Your task to perform on an android device: clear history in the chrome app Image 0: 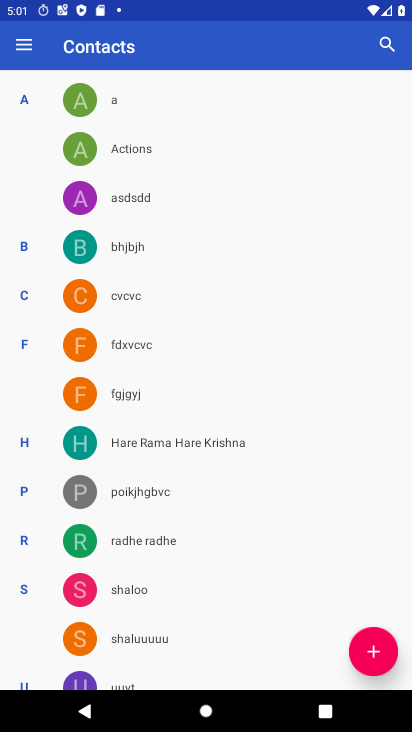
Step 0: press home button
Your task to perform on an android device: clear history in the chrome app Image 1: 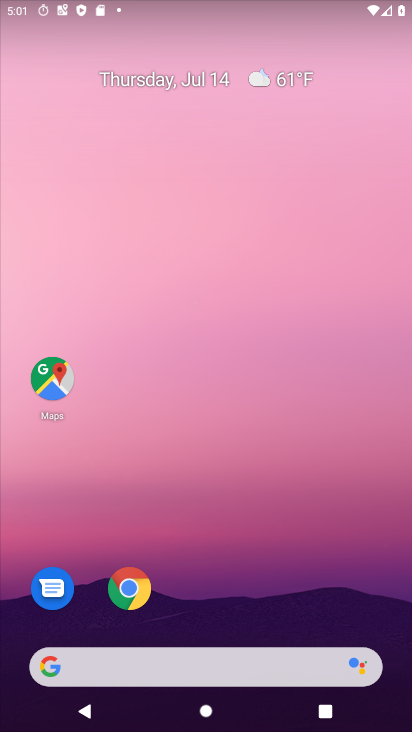
Step 1: click (129, 587)
Your task to perform on an android device: clear history in the chrome app Image 2: 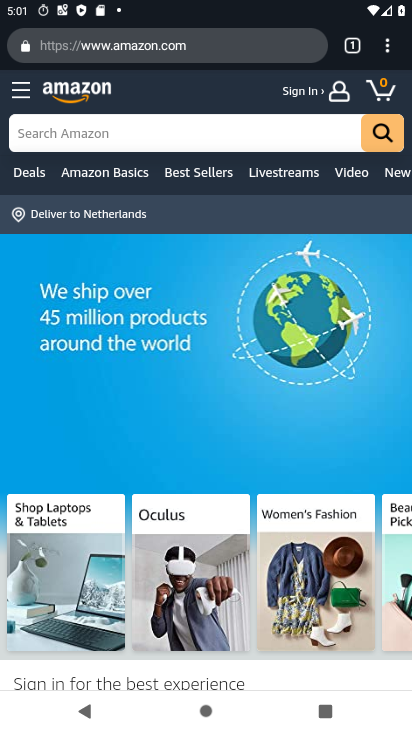
Step 2: click (389, 46)
Your task to perform on an android device: clear history in the chrome app Image 3: 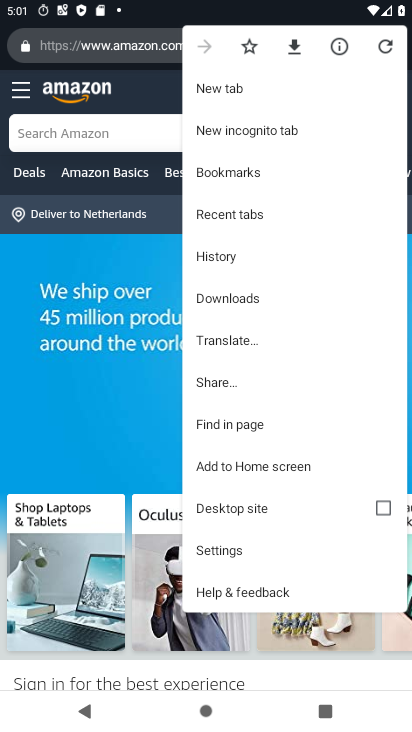
Step 3: click (233, 258)
Your task to perform on an android device: clear history in the chrome app Image 4: 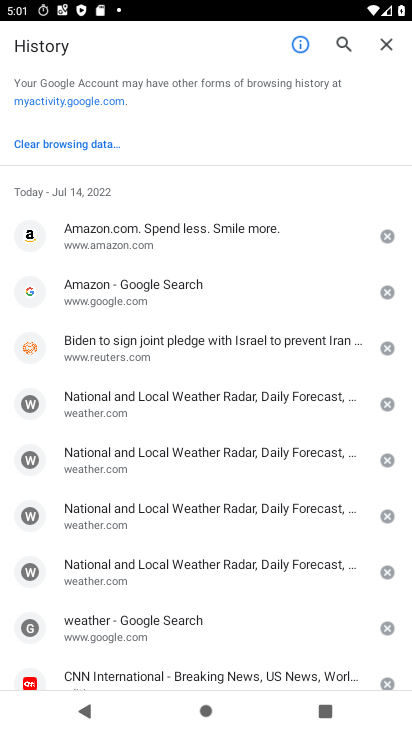
Step 4: click (92, 143)
Your task to perform on an android device: clear history in the chrome app Image 5: 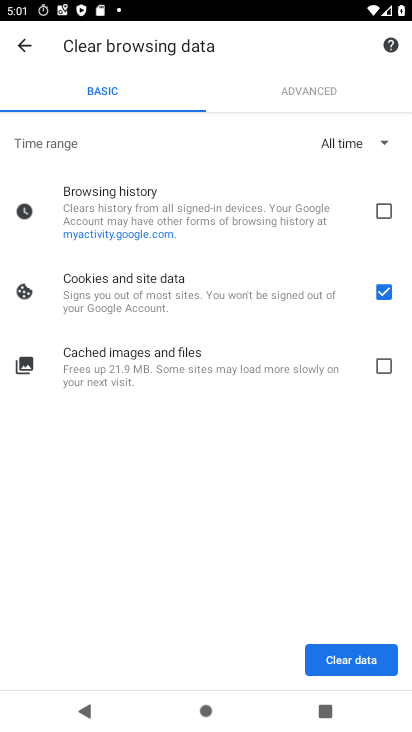
Step 5: click (378, 213)
Your task to perform on an android device: clear history in the chrome app Image 6: 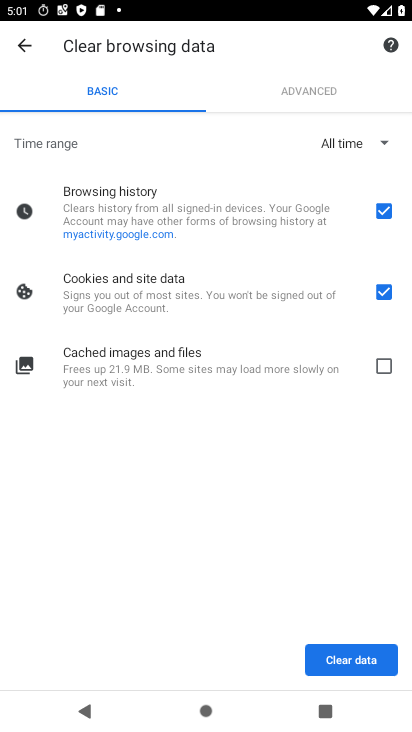
Step 6: click (385, 369)
Your task to perform on an android device: clear history in the chrome app Image 7: 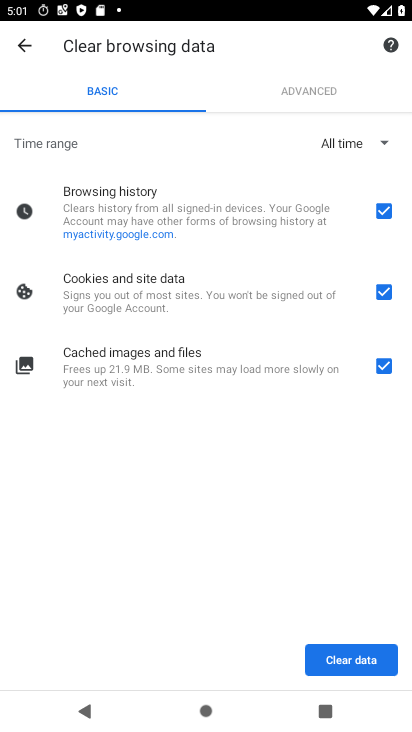
Step 7: click (351, 666)
Your task to perform on an android device: clear history in the chrome app Image 8: 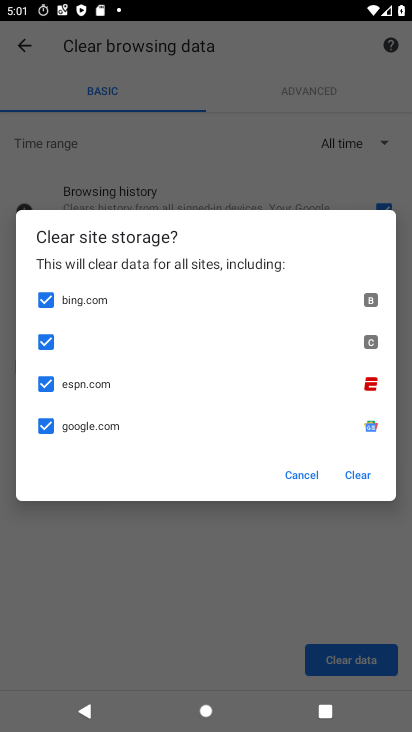
Step 8: click (358, 473)
Your task to perform on an android device: clear history in the chrome app Image 9: 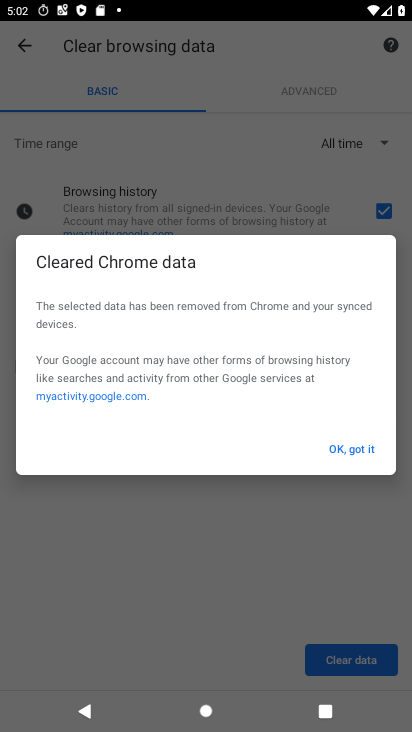
Step 9: click (365, 449)
Your task to perform on an android device: clear history in the chrome app Image 10: 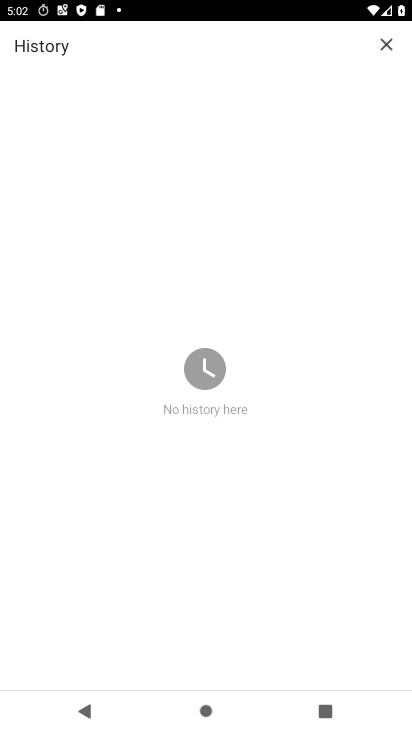
Step 10: task complete